Your task to perform on an android device: install app "Booking.com: Hotels and more" Image 0: 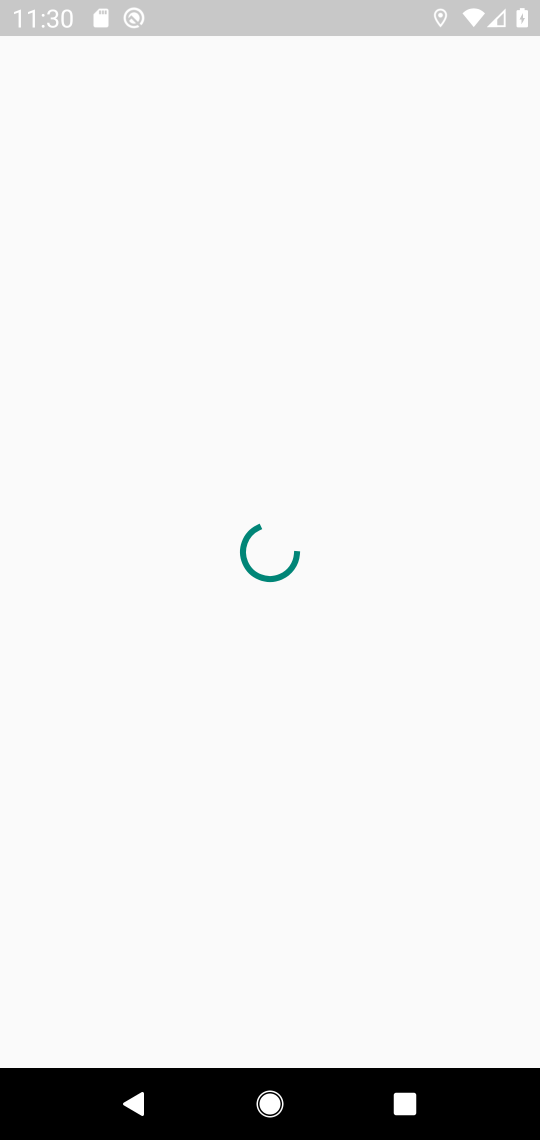
Step 0: press home button
Your task to perform on an android device: install app "Booking.com: Hotels and more" Image 1: 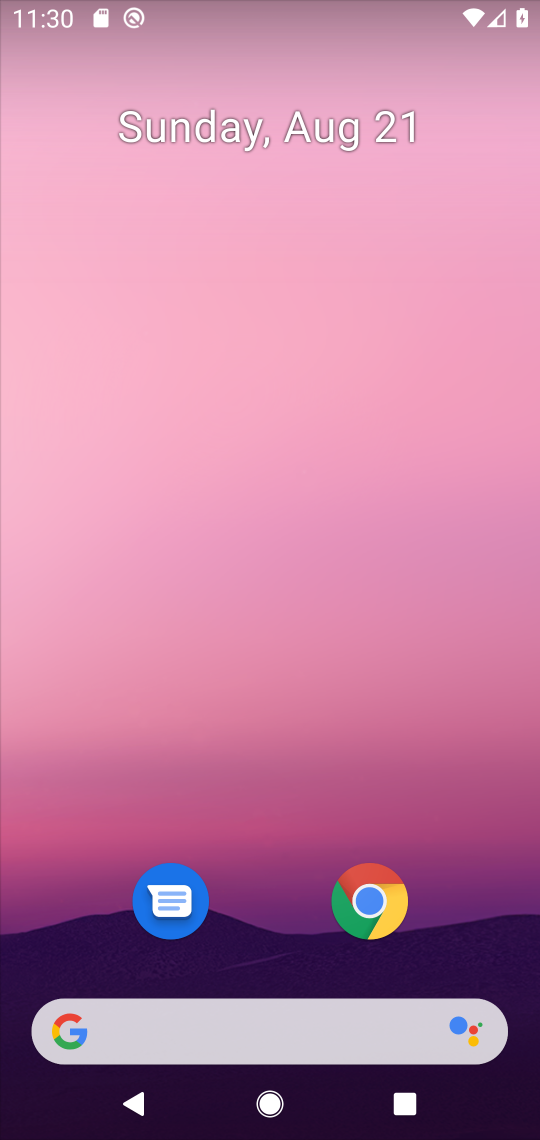
Step 1: drag from (251, 960) to (353, 142)
Your task to perform on an android device: install app "Booking.com: Hotels and more" Image 2: 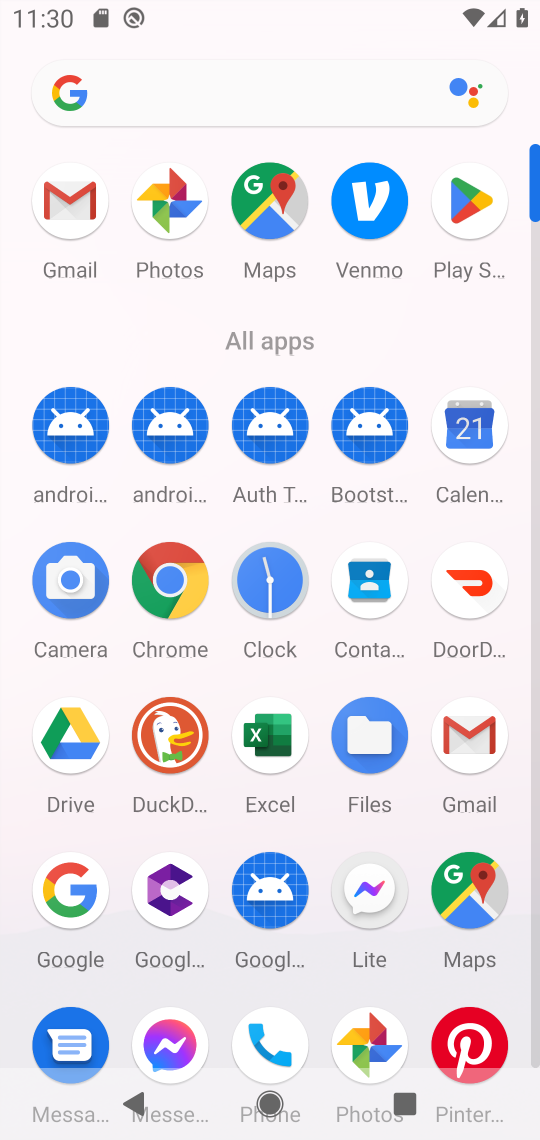
Step 2: click (453, 258)
Your task to perform on an android device: install app "Booking.com: Hotels and more" Image 3: 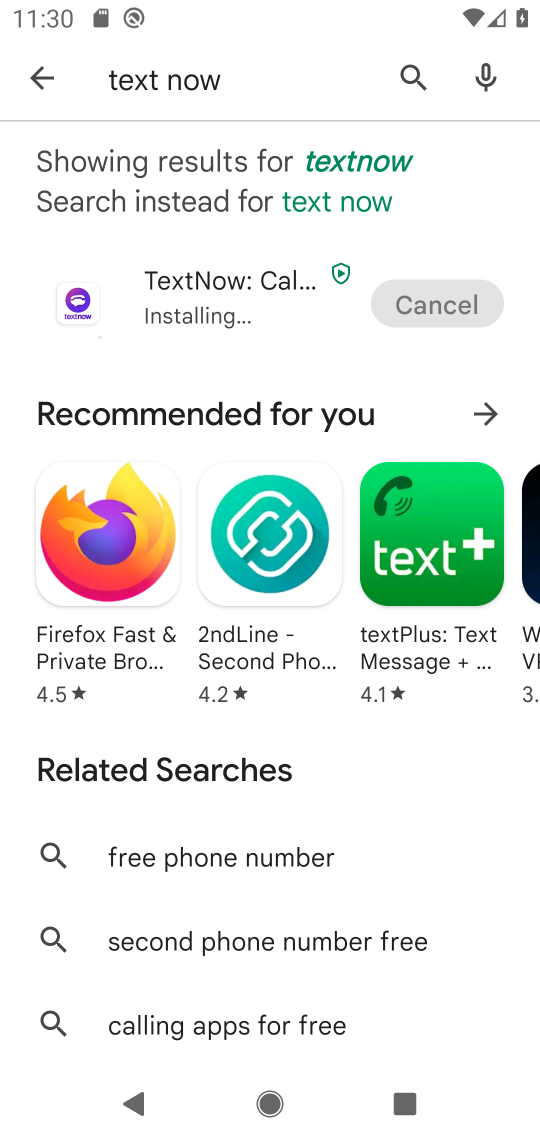
Step 3: click (421, 82)
Your task to perform on an android device: install app "Booking.com: Hotels and more" Image 4: 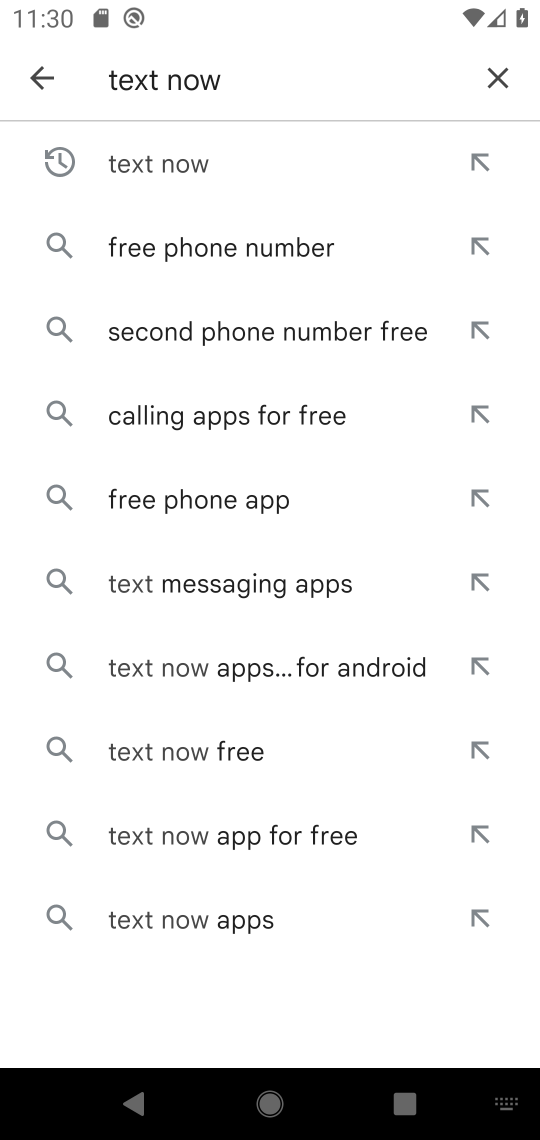
Step 4: click (486, 77)
Your task to perform on an android device: install app "Booking.com: Hotels and more" Image 5: 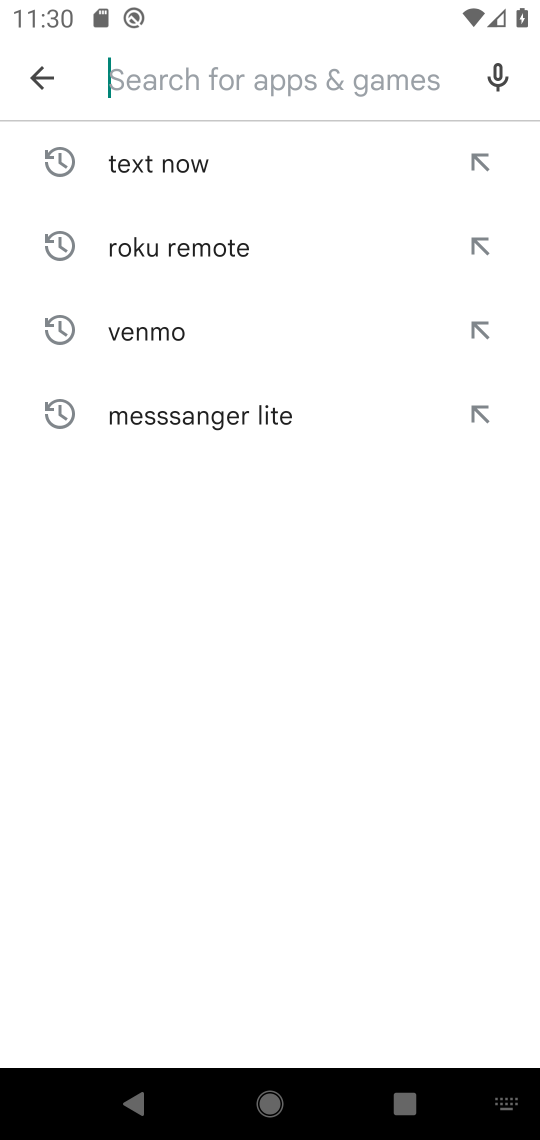
Step 5: type "booking"
Your task to perform on an android device: install app "Booking.com: Hotels and more" Image 6: 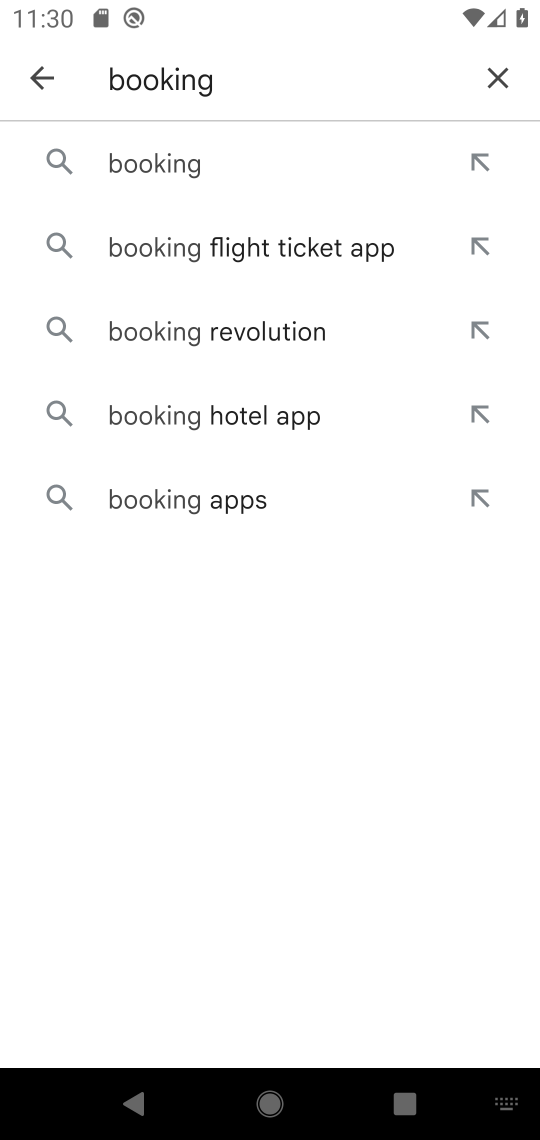
Step 6: click (177, 140)
Your task to perform on an android device: install app "Booking.com: Hotels and more" Image 7: 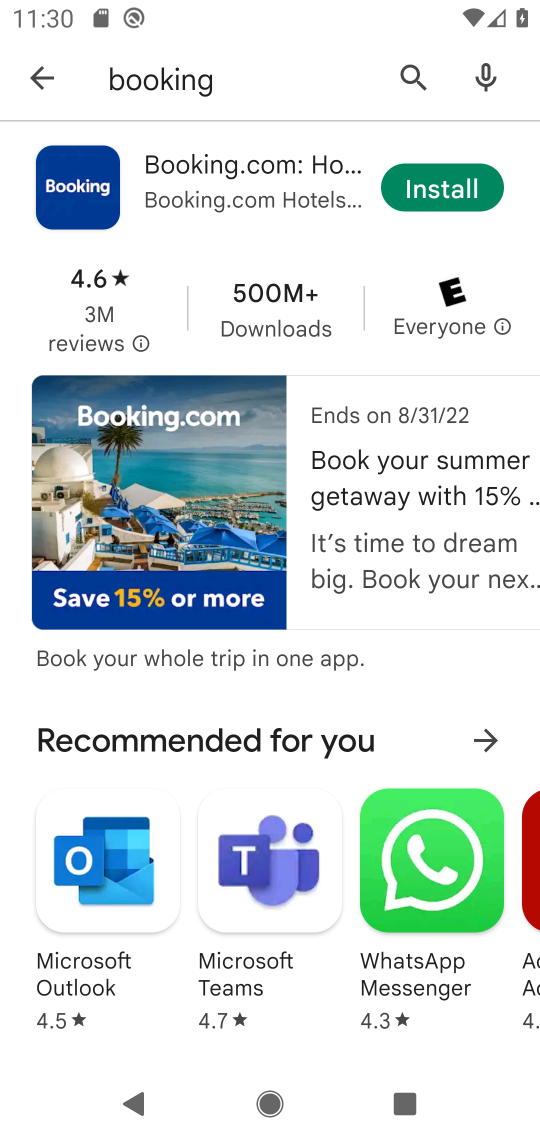
Step 7: click (414, 185)
Your task to perform on an android device: install app "Booking.com: Hotels and more" Image 8: 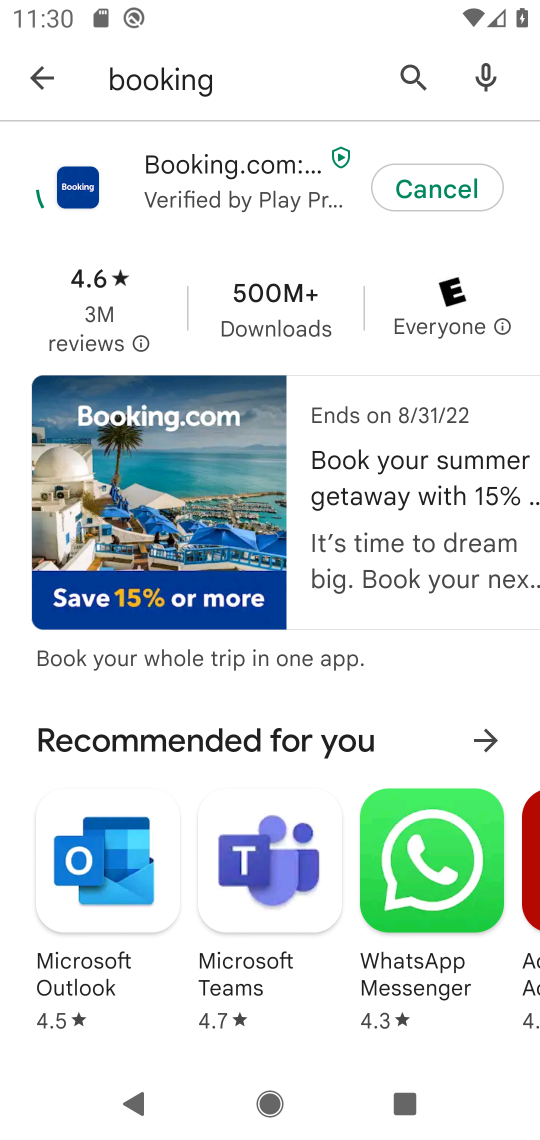
Step 8: task complete